Your task to perform on an android device: Clear all items from cart on ebay.com. Add "razer blackwidow" to the cart on ebay.com Image 0: 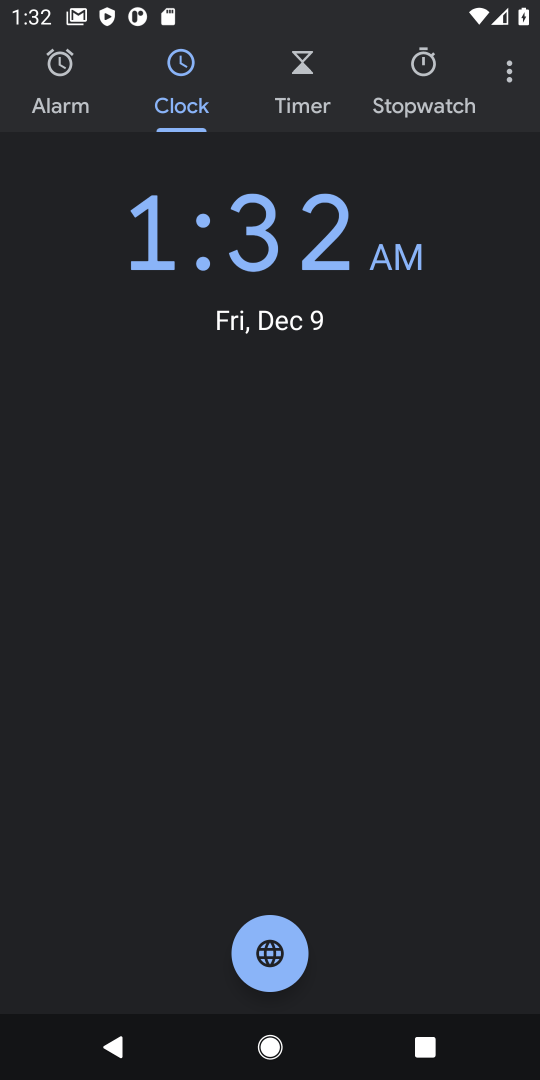
Step 0: press home button
Your task to perform on an android device: Clear all items from cart on ebay.com. Add "razer blackwidow" to the cart on ebay.com Image 1: 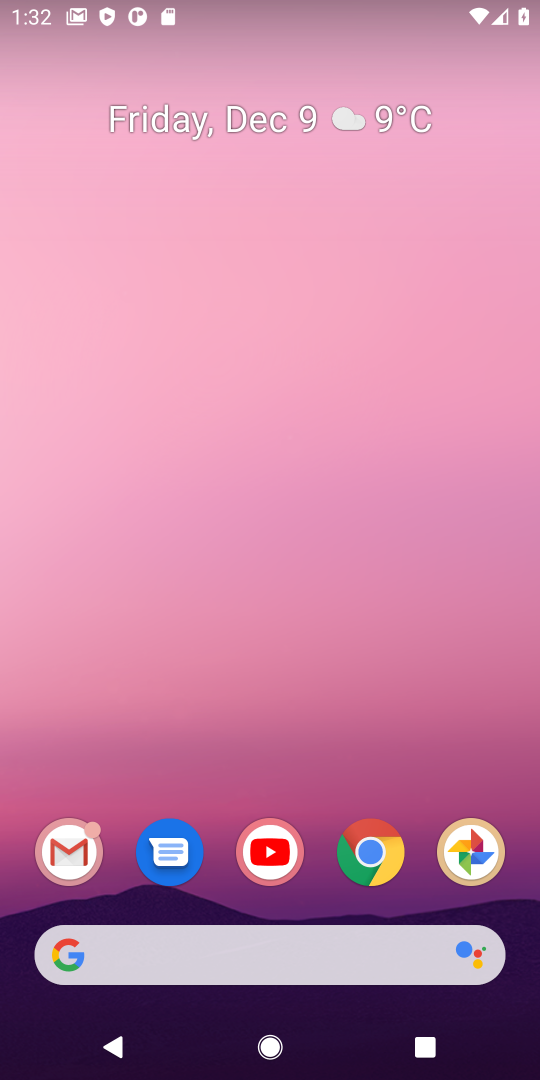
Step 1: click (361, 858)
Your task to perform on an android device: Clear all items from cart on ebay.com. Add "razer blackwidow" to the cart on ebay.com Image 2: 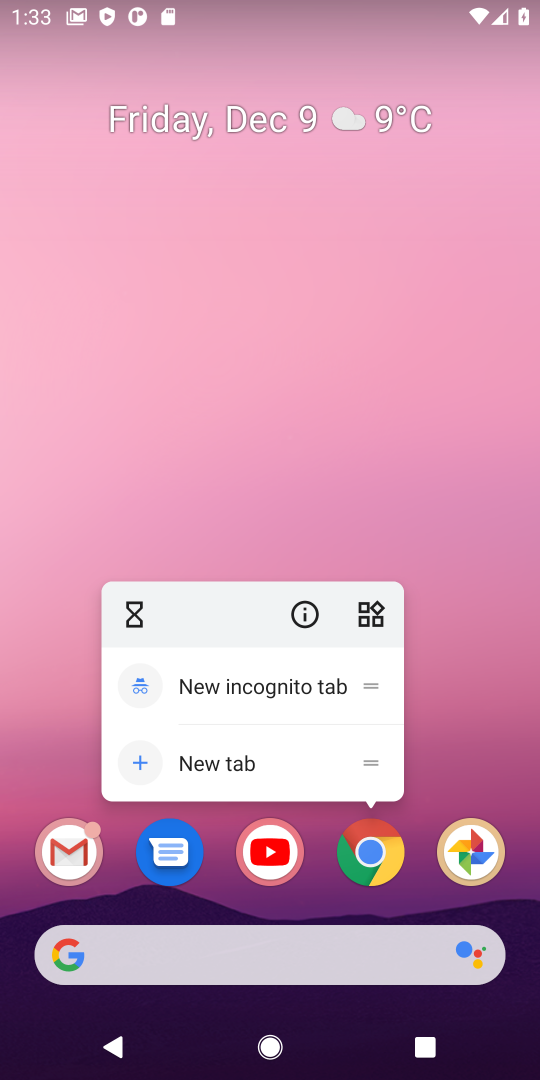
Step 2: click (368, 868)
Your task to perform on an android device: Clear all items from cart on ebay.com. Add "razer blackwidow" to the cart on ebay.com Image 3: 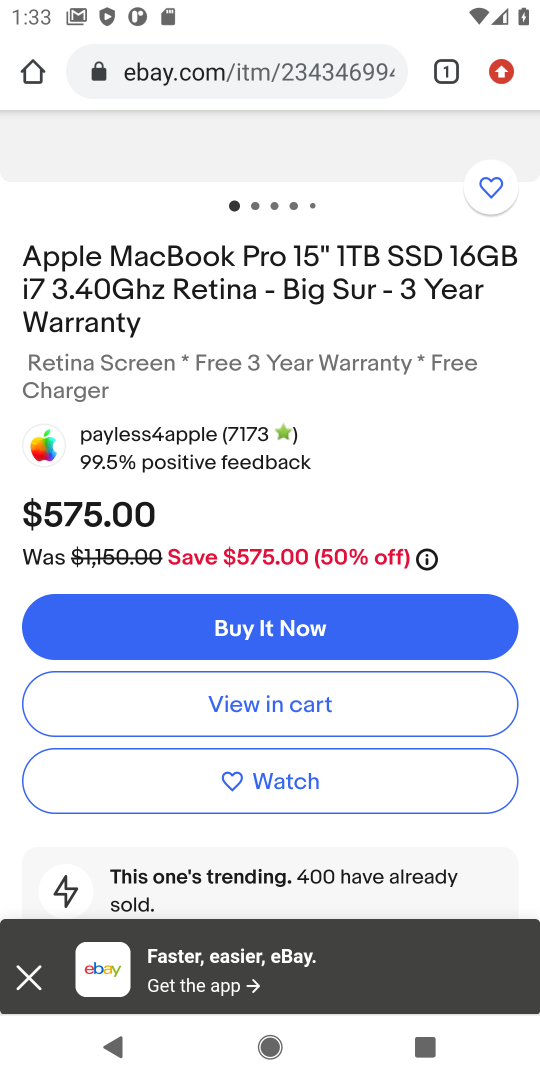
Step 3: click (173, 70)
Your task to perform on an android device: Clear all items from cart on ebay.com. Add "razer blackwidow" to the cart on ebay.com Image 4: 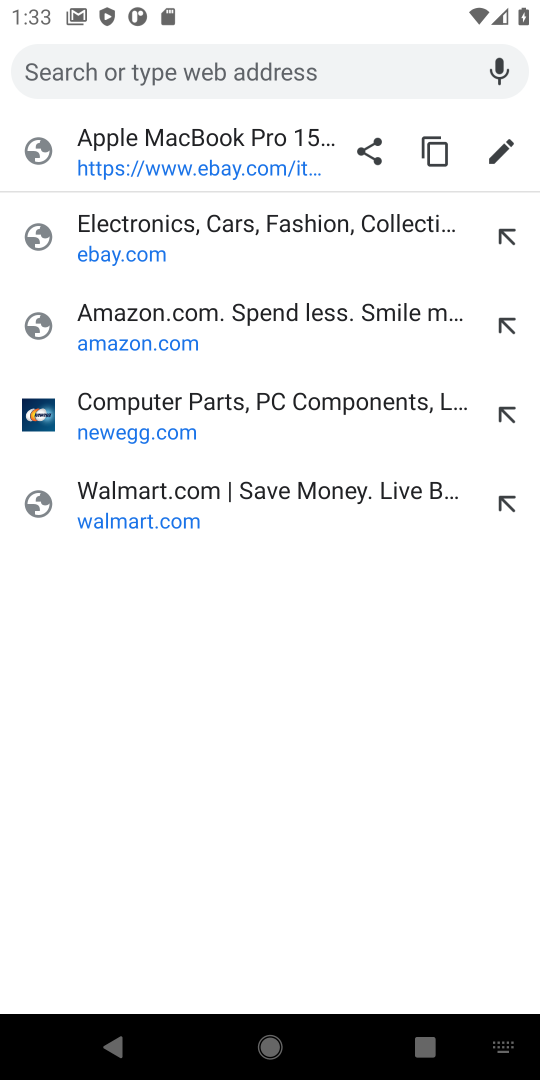
Step 4: type "ebay.com"
Your task to perform on an android device: Clear all items from cart on ebay.com. Add "razer blackwidow" to the cart on ebay.com Image 5: 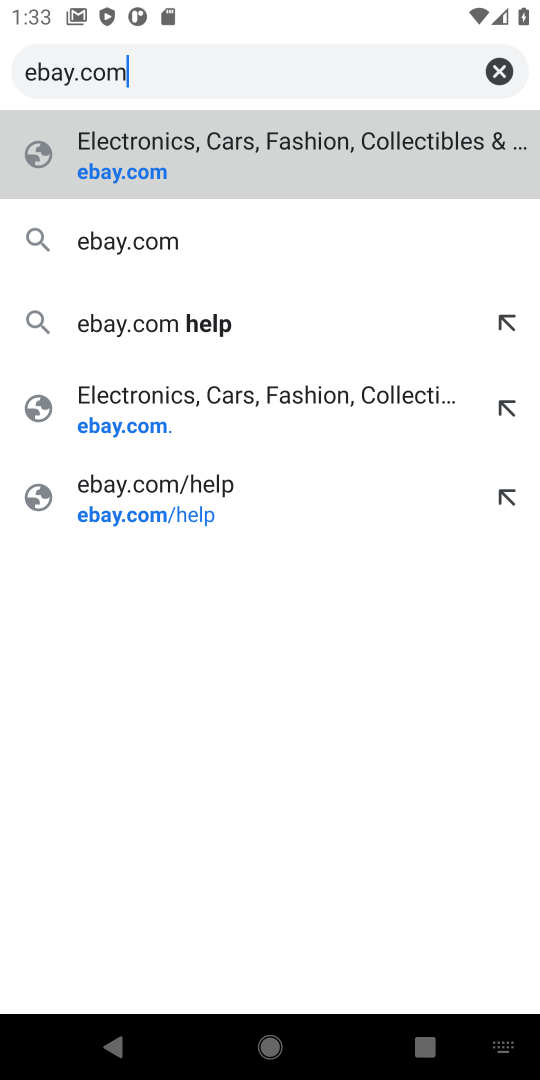
Step 5: press enter
Your task to perform on an android device: Clear all items from cart on ebay.com. Add "razer blackwidow" to the cart on ebay.com Image 6: 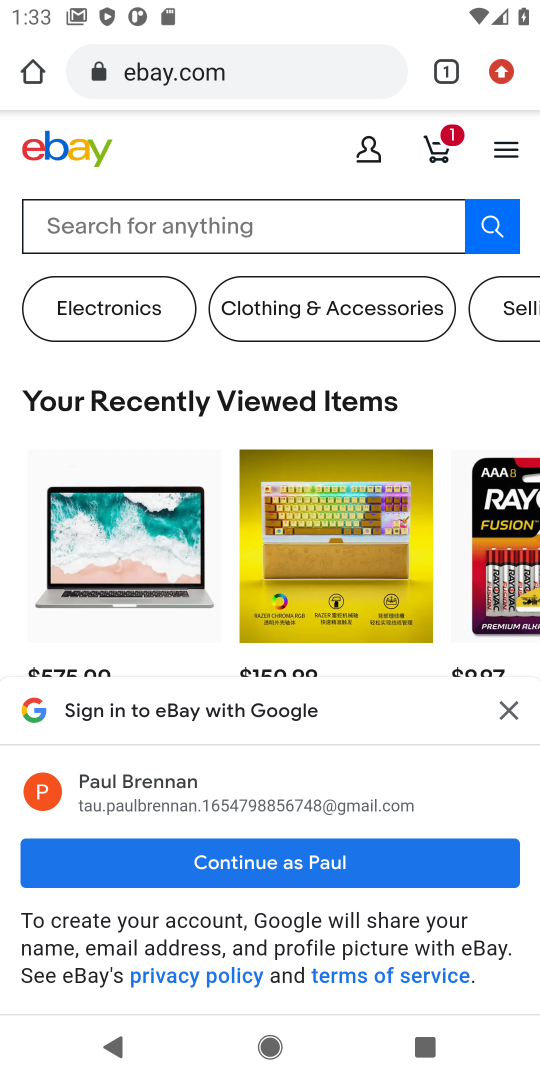
Step 6: click (439, 147)
Your task to perform on an android device: Clear all items from cart on ebay.com. Add "razer blackwidow" to the cart on ebay.com Image 7: 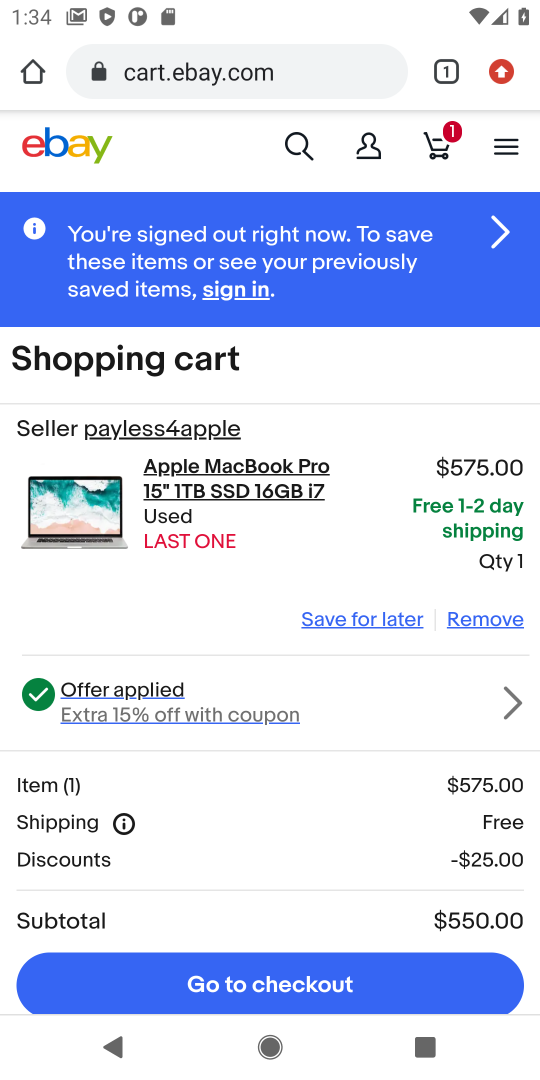
Step 7: click (472, 625)
Your task to perform on an android device: Clear all items from cart on ebay.com. Add "razer blackwidow" to the cart on ebay.com Image 8: 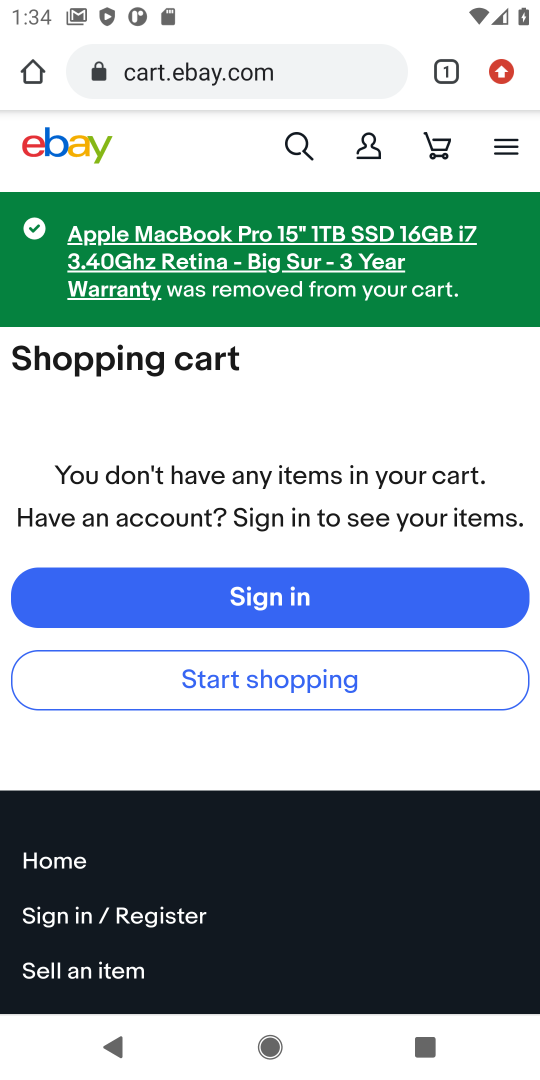
Step 8: click (306, 146)
Your task to perform on an android device: Clear all items from cart on ebay.com. Add "razer blackwidow" to the cart on ebay.com Image 9: 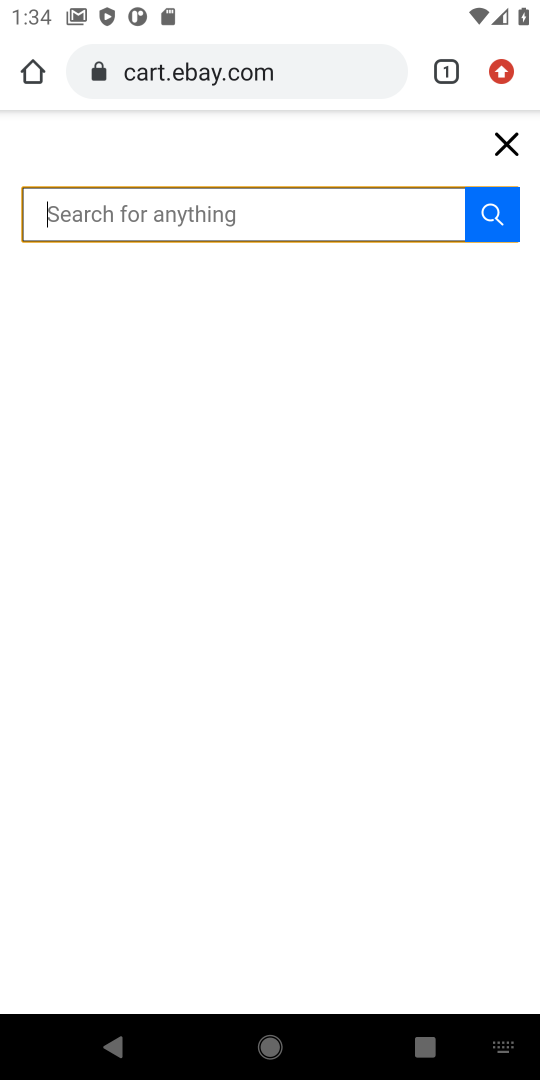
Step 9: type "razer blackwidow"
Your task to perform on an android device: Clear all items from cart on ebay.com. Add "razer blackwidow" to the cart on ebay.com Image 10: 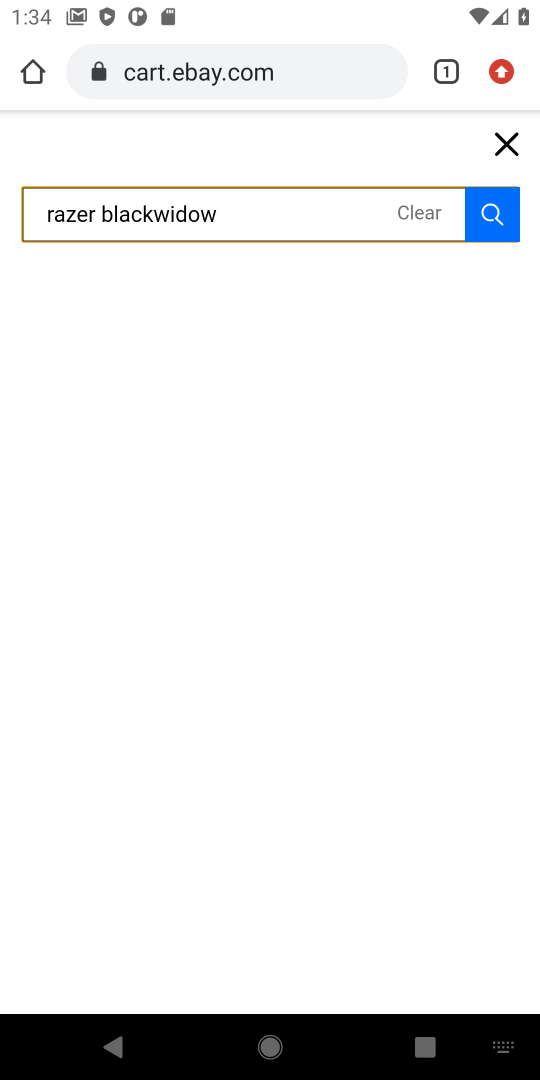
Step 10: press enter
Your task to perform on an android device: Clear all items from cart on ebay.com. Add "razer blackwidow" to the cart on ebay.com Image 11: 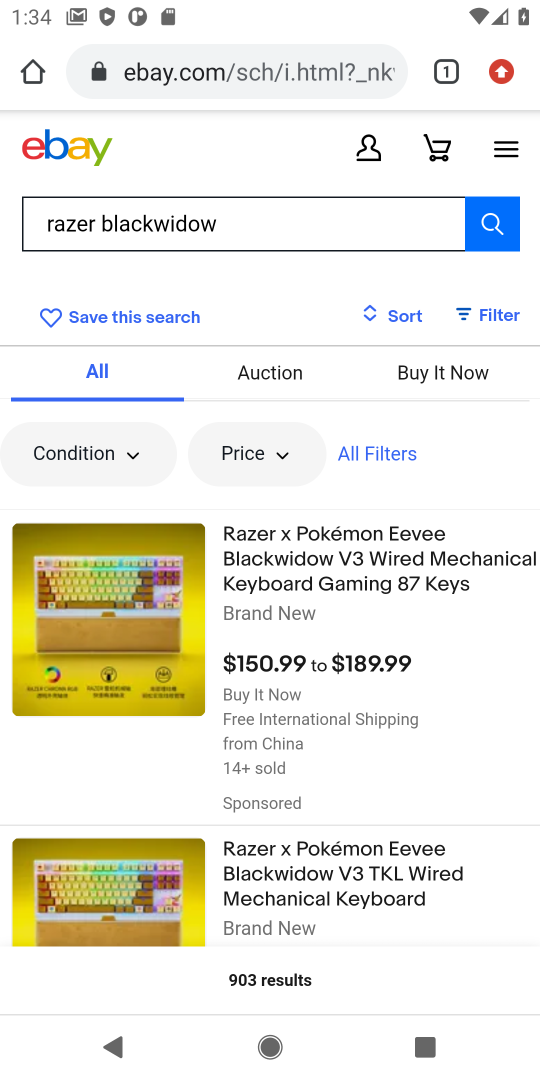
Step 11: click (269, 597)
Your task to perform on an android device: Clear all items from cart on ebay.com. Add "razer blackwidow" to the cart on ebay.com Image 12: 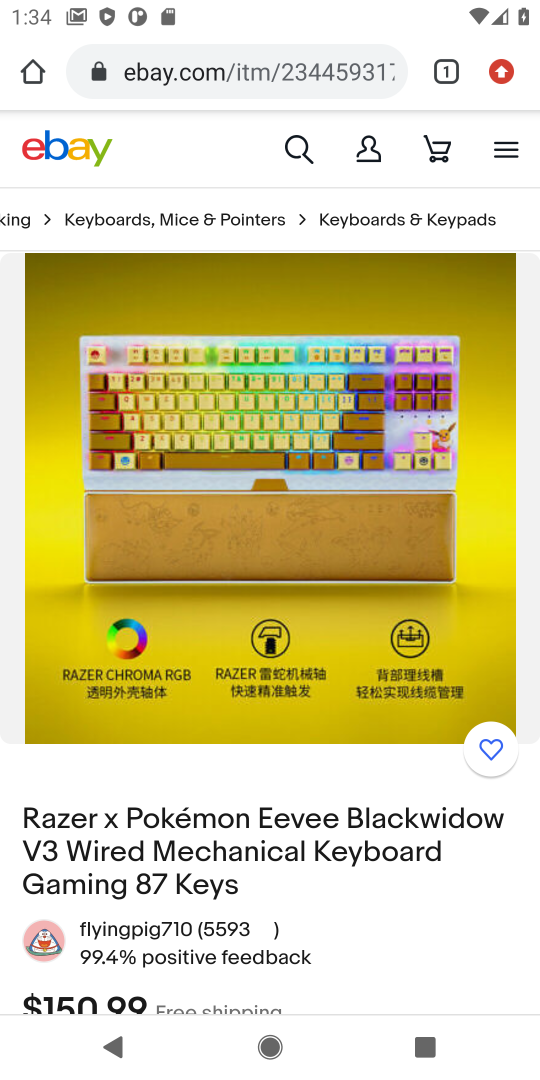
Step 12: click (299, 934)
Your task to perform on an android device: Clear all items from cart on ebay.com. Add "razer blackwidow" to the cart on ebay.com Image 13: 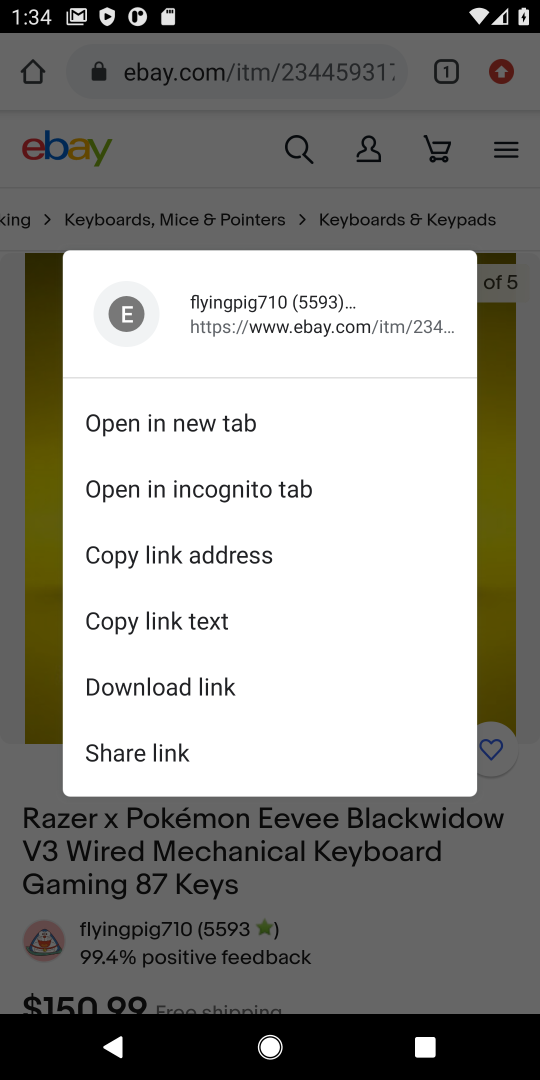
Step 13: click (277, 906)
Your task to perform on an android device: Clear all items from cart on ebay.com. Add "razer blackwidow" to the cart on ebay.com Image 14: 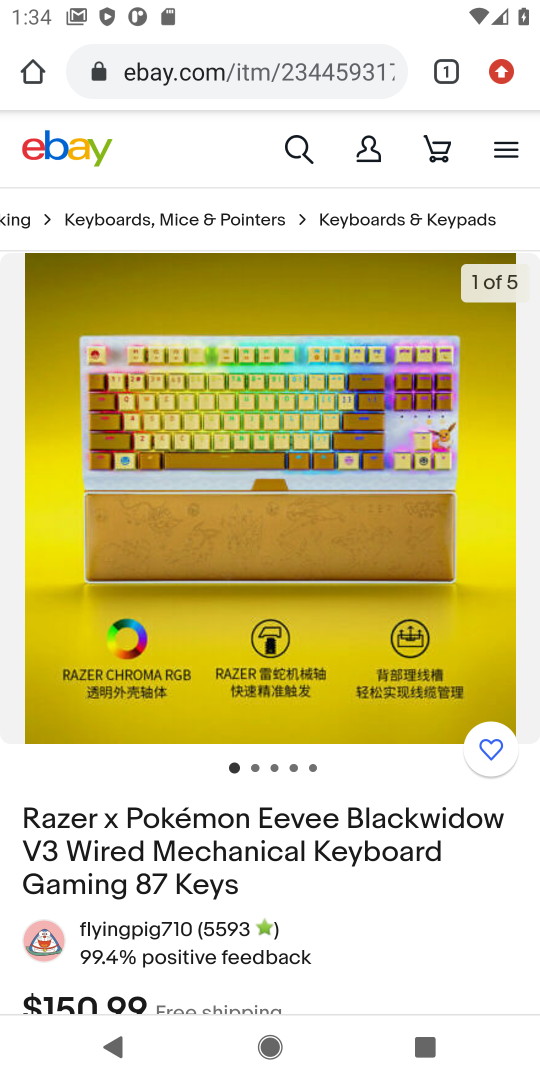
Step 14: drag from (308, 906) to (367, 475)
Your task to perform on an android device: Clear all items from cart on ebay.com. Add "razer blackwidow" to the cart on ebay.com Image 15: 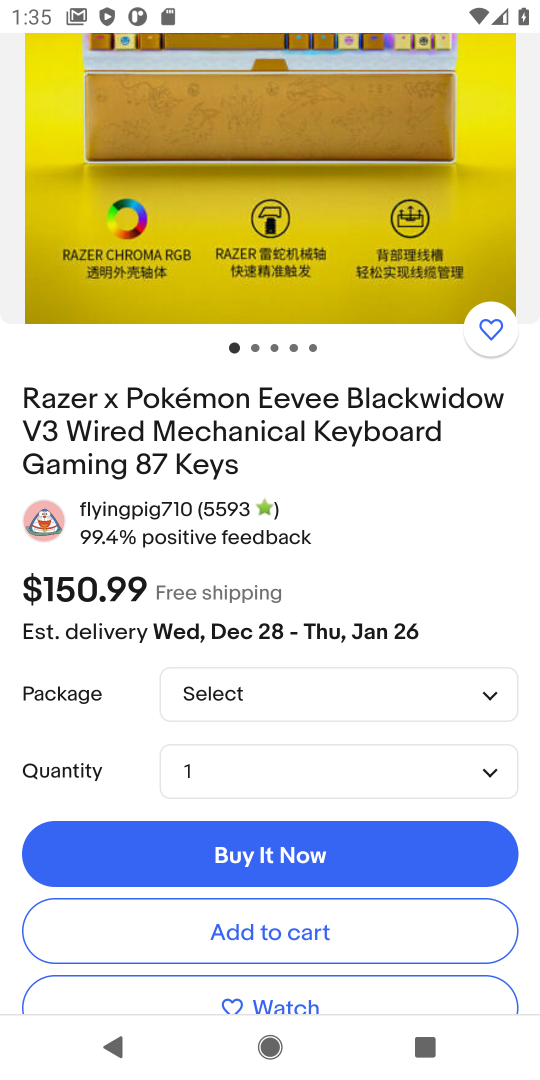
Step 15: click (308, 690)
Your task to perform on an android device: Clear all items from cart on ebay.com. Add "razer blackwidow" to the cart on ebay.com Image 16: 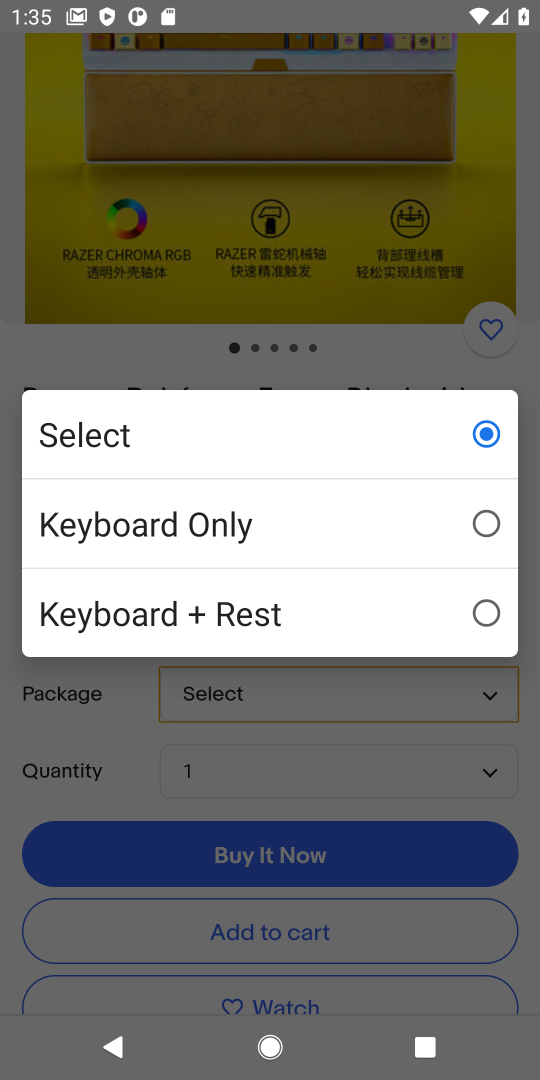
Step 16: click (216, 533)
Your task to perform on an android device: Clear all items from cart on ebay.com. Add "razer blackwidow" to the cart on ebay.com Image 17: 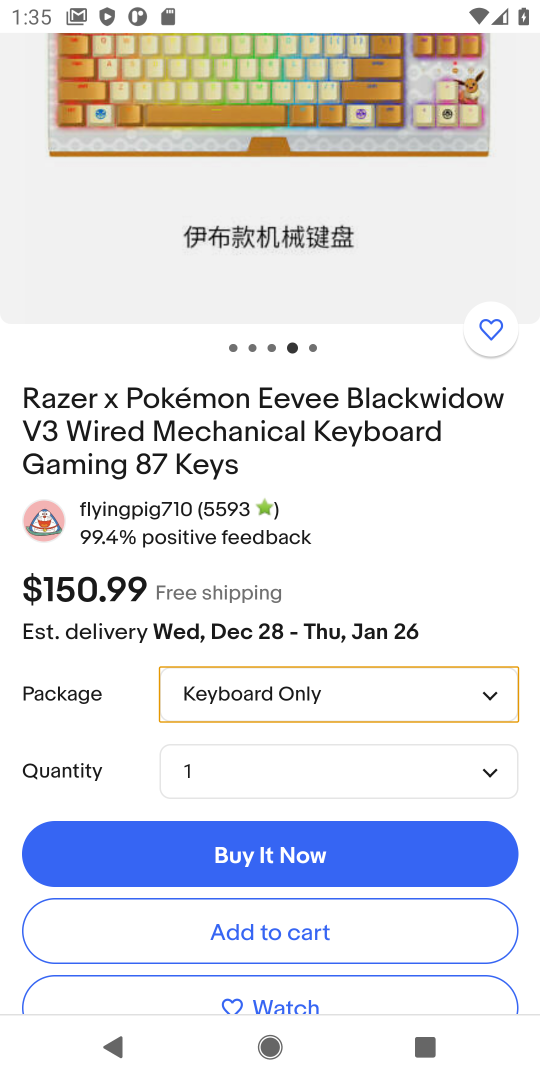
Step 17: click (277, 931)
Your task to perform on an android device: Clear all items from cart on ebay.com. Add "razer blackwidow" to the cart on ebay.com Image 18: 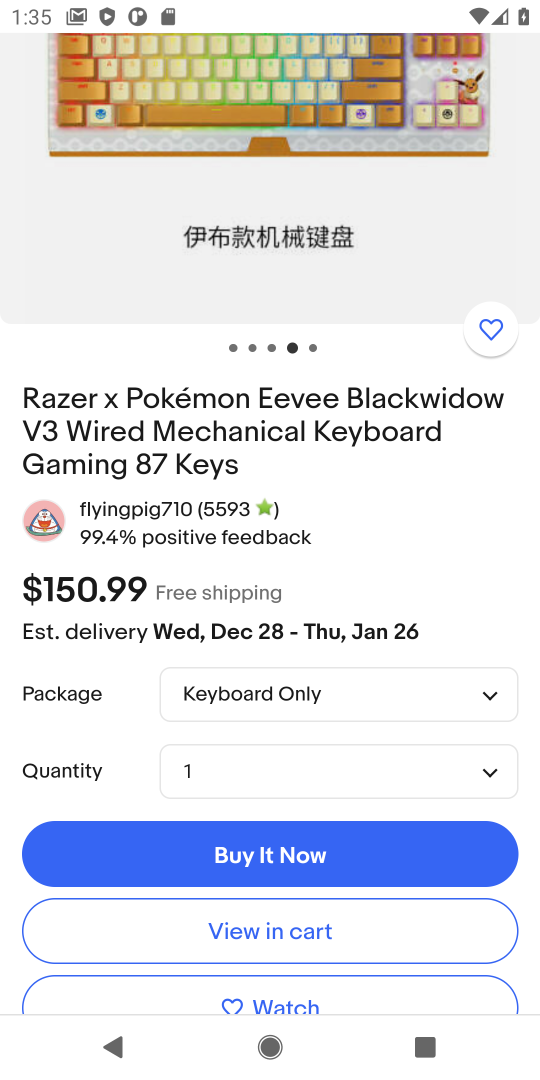
Step 18: task complete